Your task to perform on an android device: Go to Wikipedia Image 0: 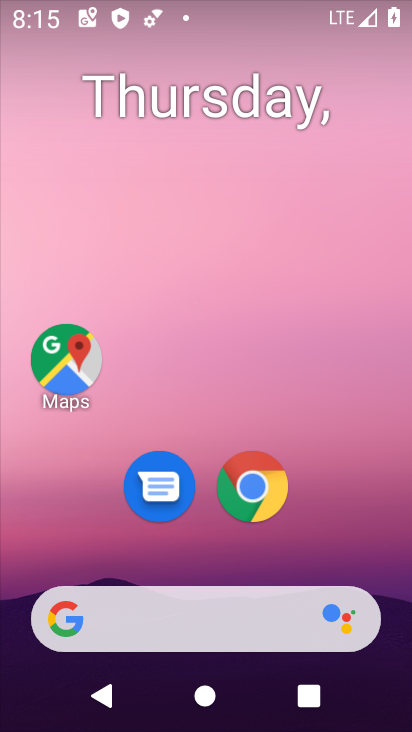
Step 0: drag from (282, 650) to (287, 227)
Your task to perform on an android device: Go to Wikipedia Image 1: 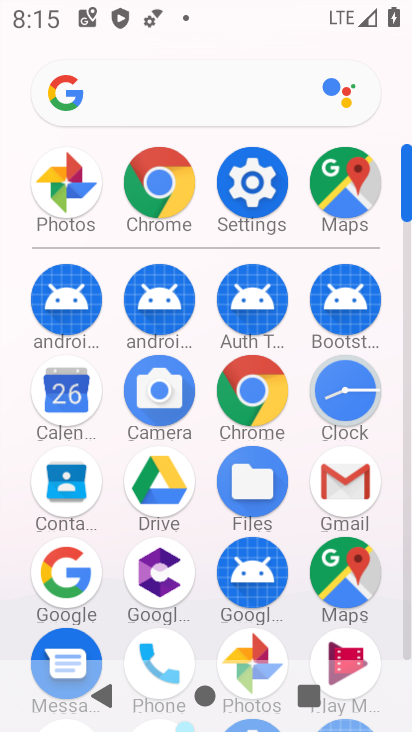
Step 1: drag from (297, 507) to (347, 242)
Your task to perform on an android device: Go to Wikipedia Image 2: 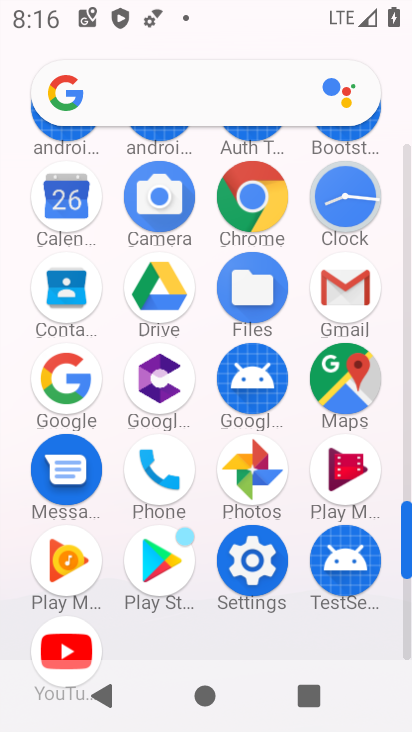
Step 2: click (252, 183)
Your task to perform on an android device: Go to Wikipedia Image 3: 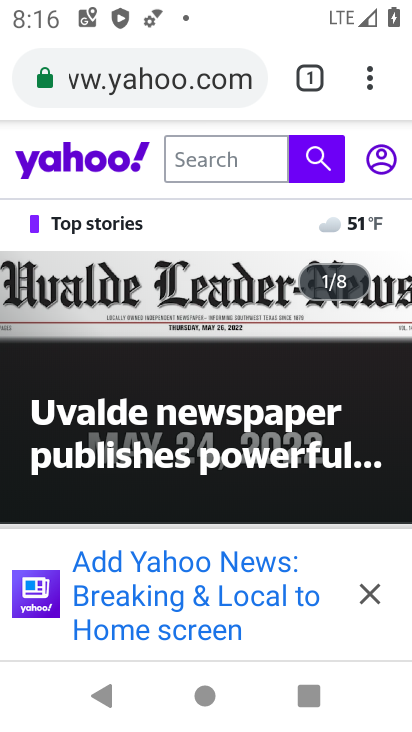
Step 3: click (190, 86)
Your task to perform on an android device: Go to Wikipedia Image 4: 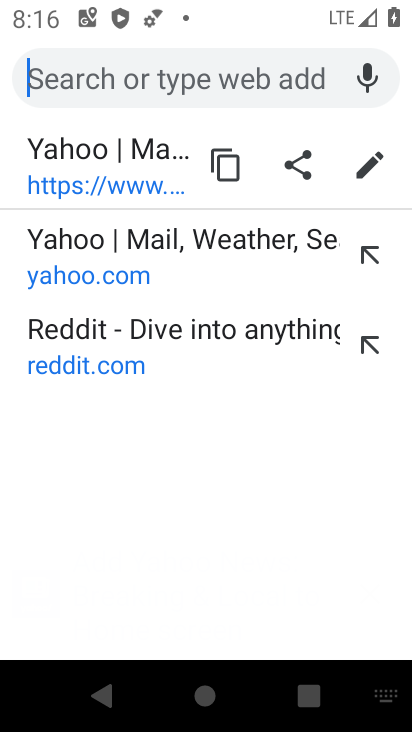
Step 4: type "wikkipedia"
Your task to perform on an android device: Go to Wikipedia Image 5: 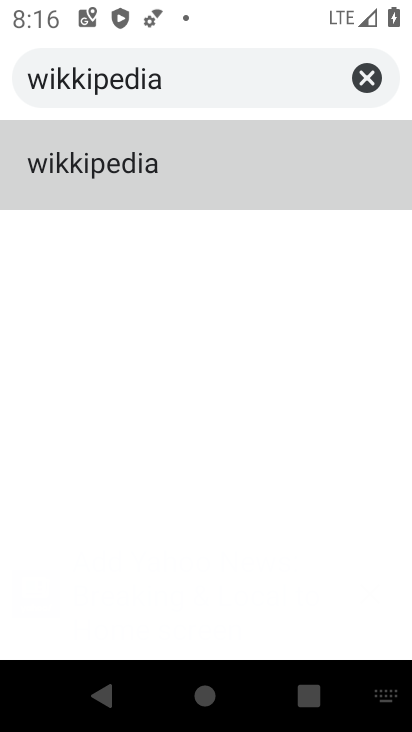
Step 5: click (360, 79)
Your task to perform on an android device: Go to Wikipedia Image 6: 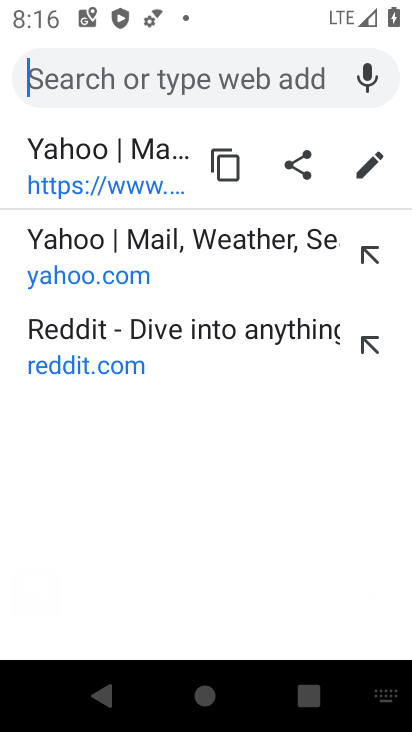
Step 6: type "wikipedia"
Your task to perform on an android device: Go to Wikipedia Image 7: 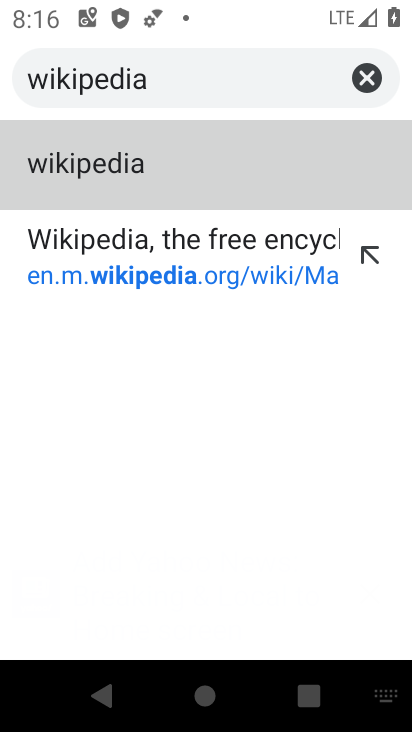
Step 7: click (192, 287)
Your task to perform on an android device: Go to Wikipedia Image 8: 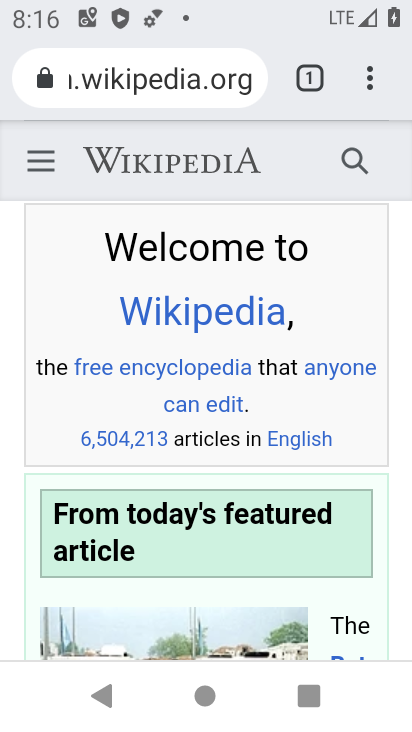
Step 8: task complete